Your task to perform on an android device: Go to accessibility settings Image 0: 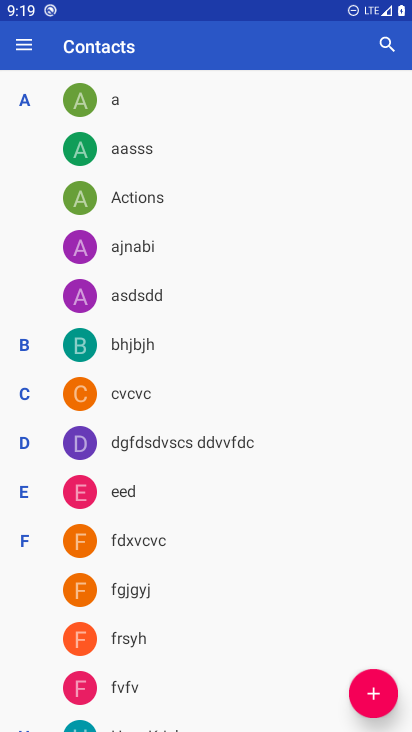
Step 0: press home button
Your task to perform on an android device: Go to accessibility settings Image 1: 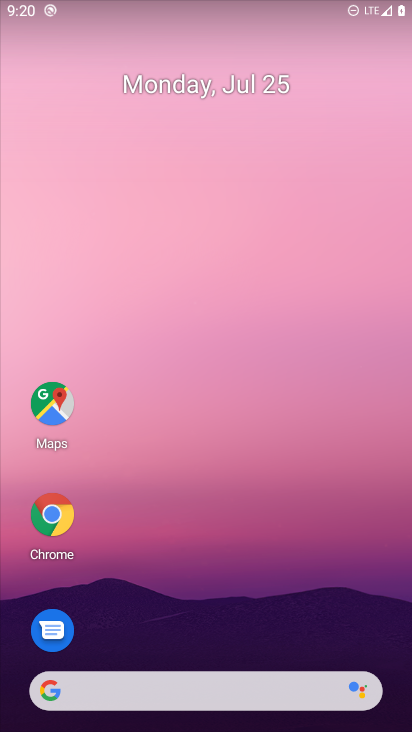
Step 1: drag from (17, 682) to (205, 248)
Your task to perform on an android device: Go to accessibility settings Image 2: 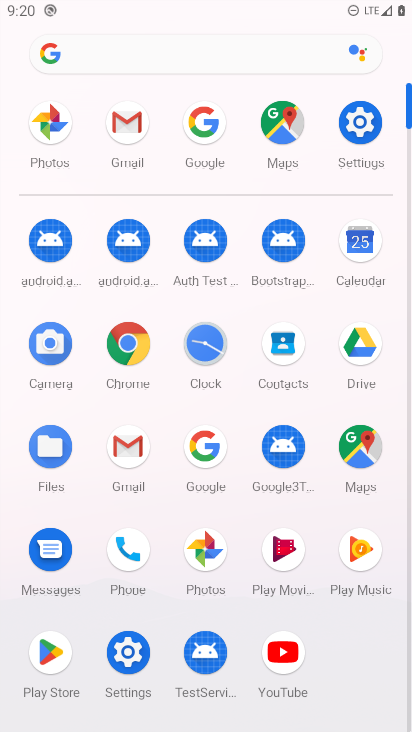
Step 2: click (128, 653)
Your task to perform on an android device: Go to accessibility settings Image 3: 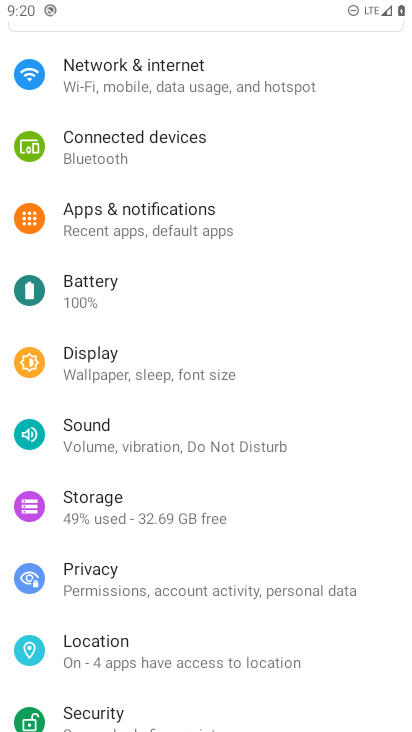
Step 3: drag from (230, 685) to (247, 107)
Your task to perform on an android device: Go to accessibility settings Image 4: 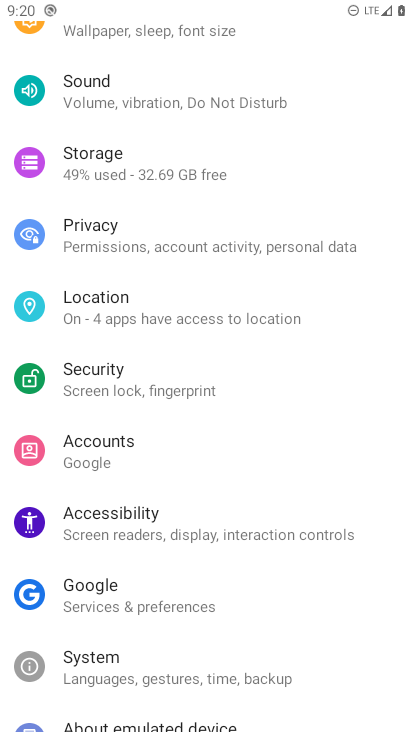
Step 4: click (109, 521)
Your task to perform on an android device: Go to accessibility settings Image 5: 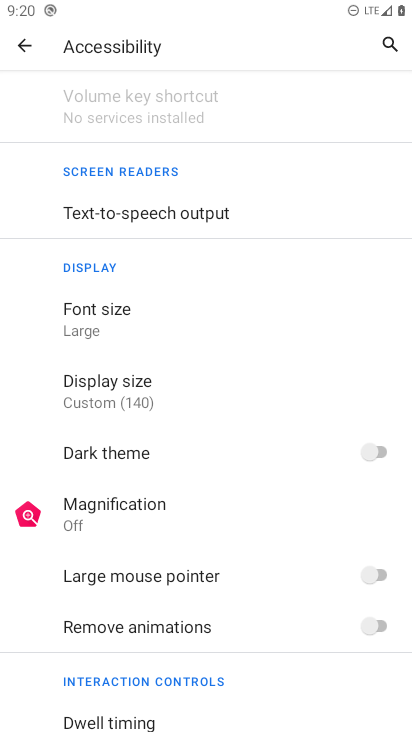
Step 5: task complete